Your task to perform on an android device: Go to Android settings Image 0: 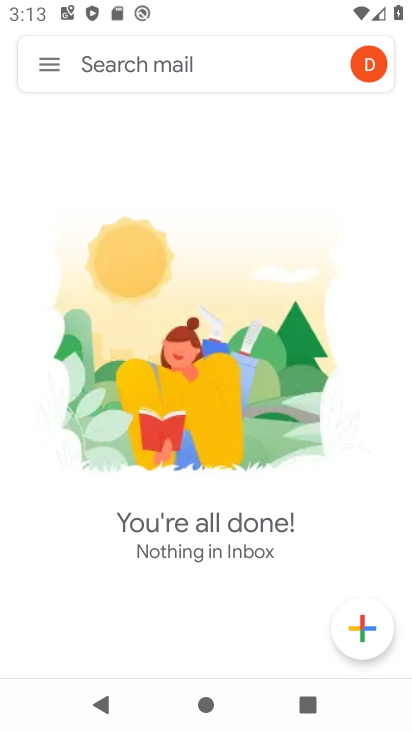
Step 0: press home button
Your task to perform on an android device: Go to Android settings Image 1: 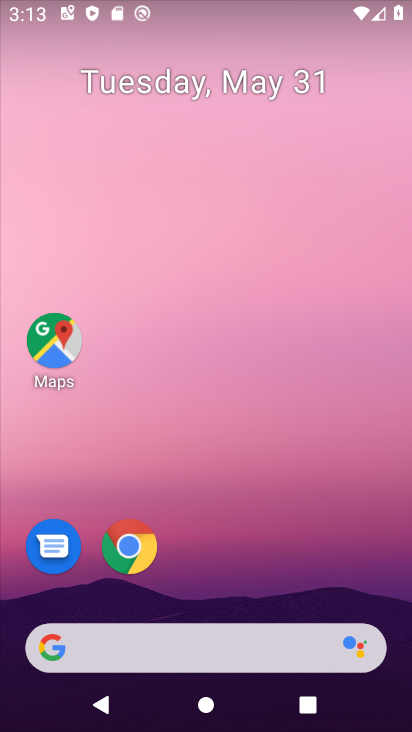
Step 1: drag from (260, 568) to (242, 109)
Your task to perform on an android device: Go to Android settings Image 2: 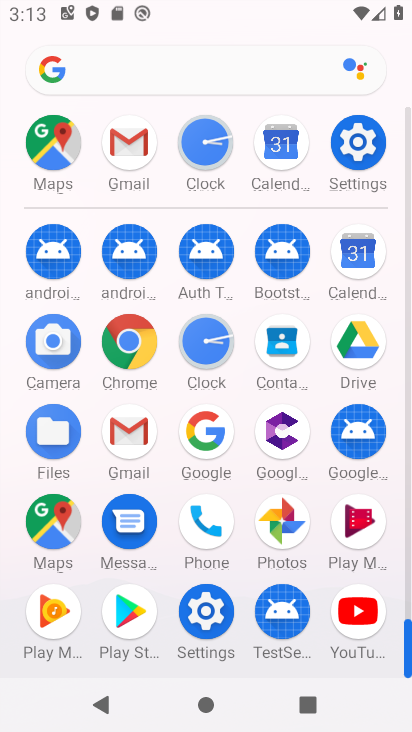
Step 2: click (357, 148)
Your task to perform on an android device: Go to Android settings Image 3: 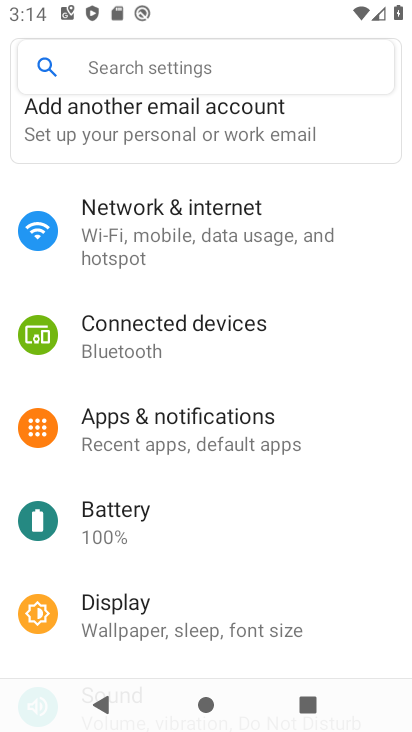
Step 3: drag from (278, 562) to (180, 8)
Your task to perform on an android device: Go to Android settings Image 4: 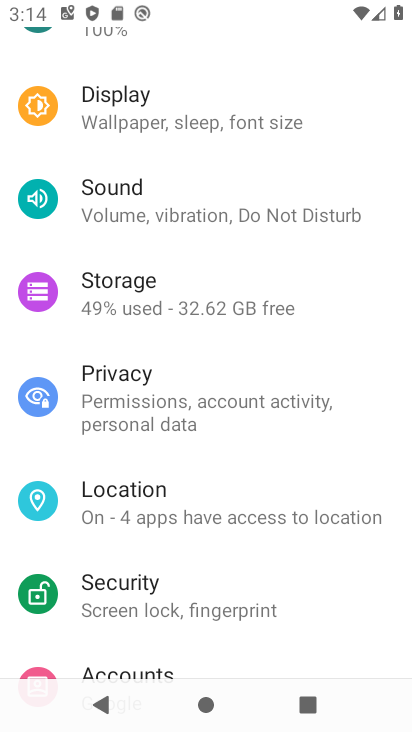
Step 4: drag from (233, 556) to (235, 0)
Your task to perform on an android device: Go to Android settings Image 5: 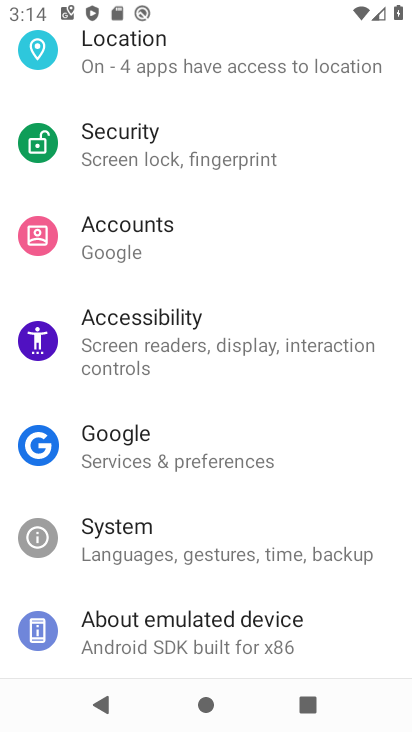
Step 5: click (155, 624)
Your task to perform on an android device: Go to Android settings Image 6: 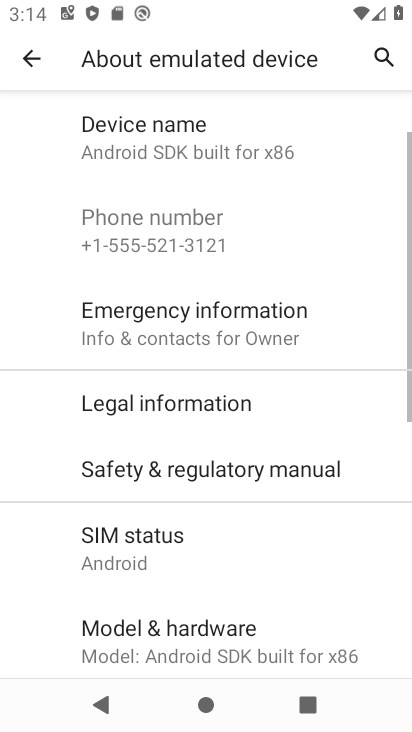
Step 6: task complete